Your task to perform on an android device: Empty the shopping cart on ebay. Image 0: 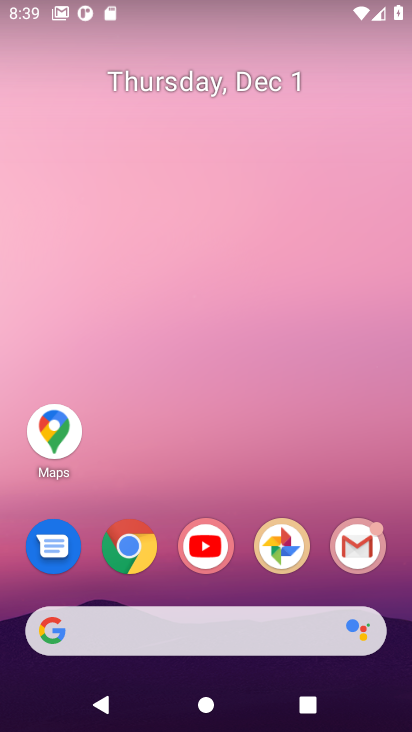
Step 0: click (137, 551)
Your task to perform on an android device: Empty the shopping cart on ebay. Image 1: 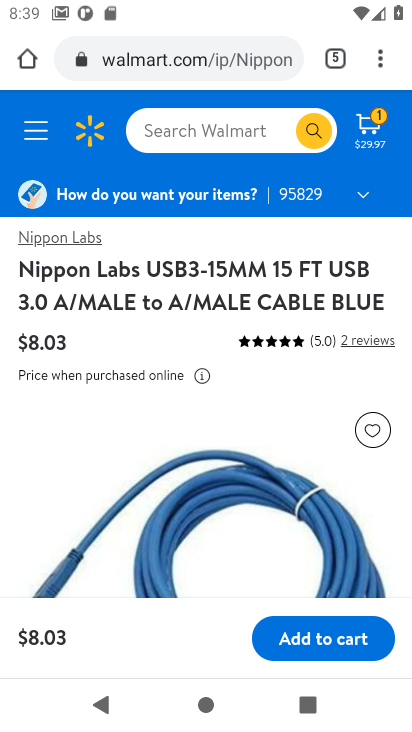
Step 1: click (170, 64)
Your task to perform on an android device: Empty the shopping cart on ebay. Image 2: 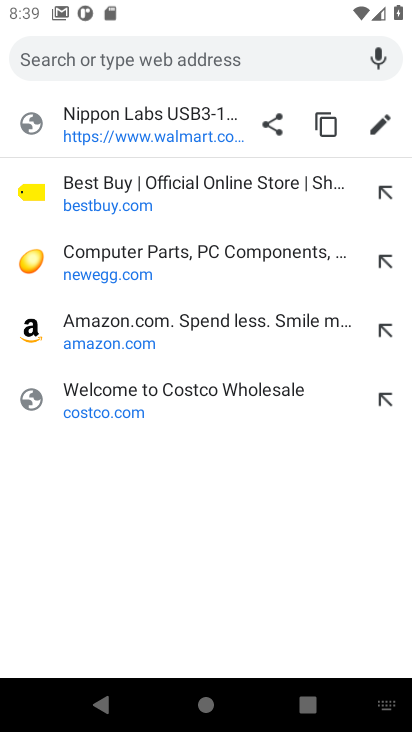
Step 2: type "ebay.com"
Your task to perform on an android device: Empty the shopping cart on ebay. Image 3: 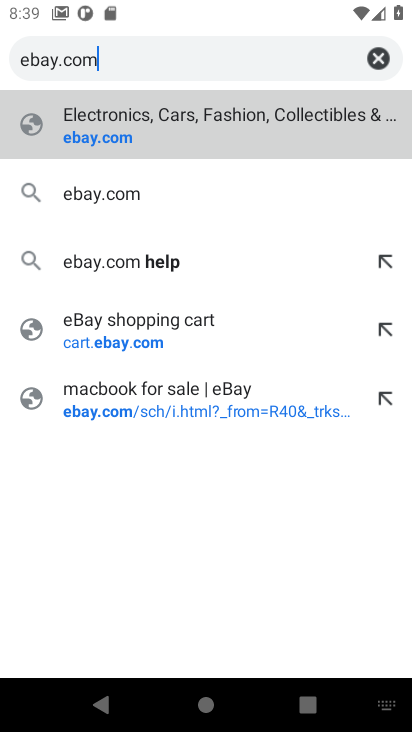
Step 3: click (92, 148)
Your task to perform on an android device: Empty the shopping cart on ebay. Image 4: 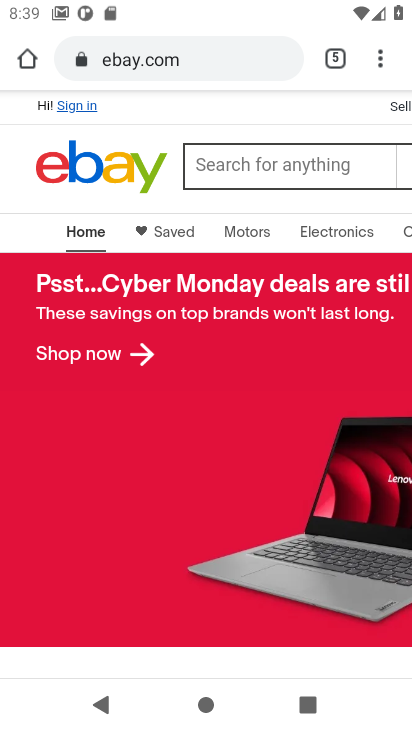
Step 4: drag from (258, 203) to (8, 153)
Your task to perform on an android device: Empty the shopping cart on ebay. Image 5: 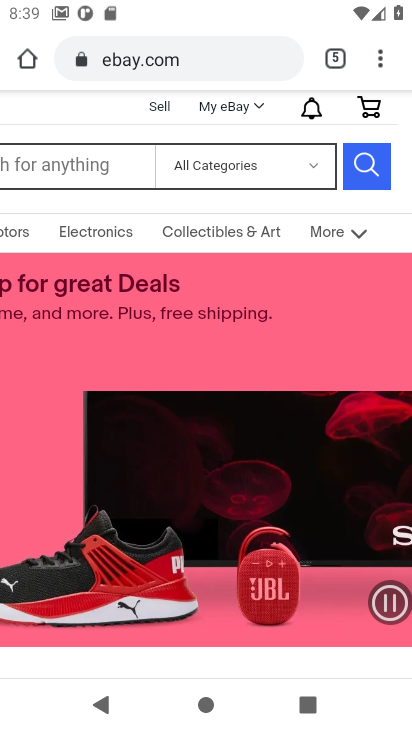
Step 5: click (372, 105)
Your task to perform on an android device: Empty the shopping cart on ebay. Image 6: 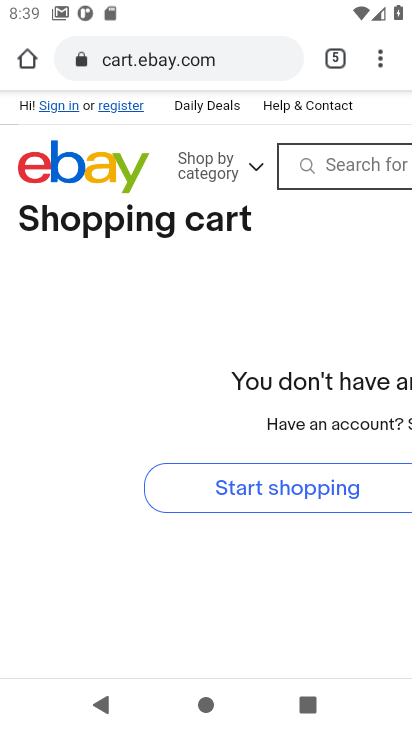
Step 6: task complete